Your task to perform on an android device: refresh tabs in the chrome app Image 0: 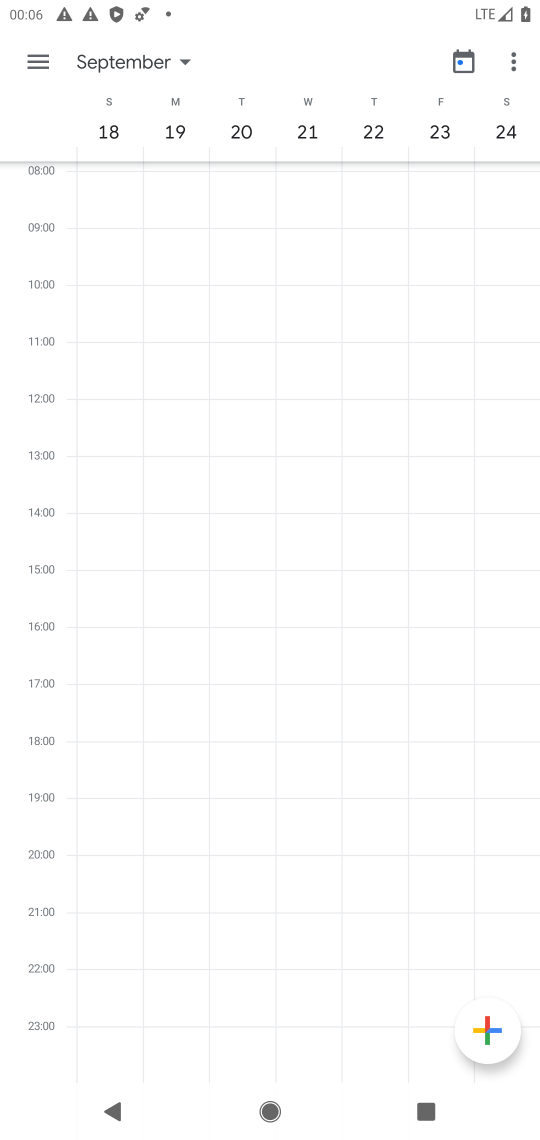
Step 0: press home button
Your task to perform on an android device: refresh tabs in the chrome app Image 1: 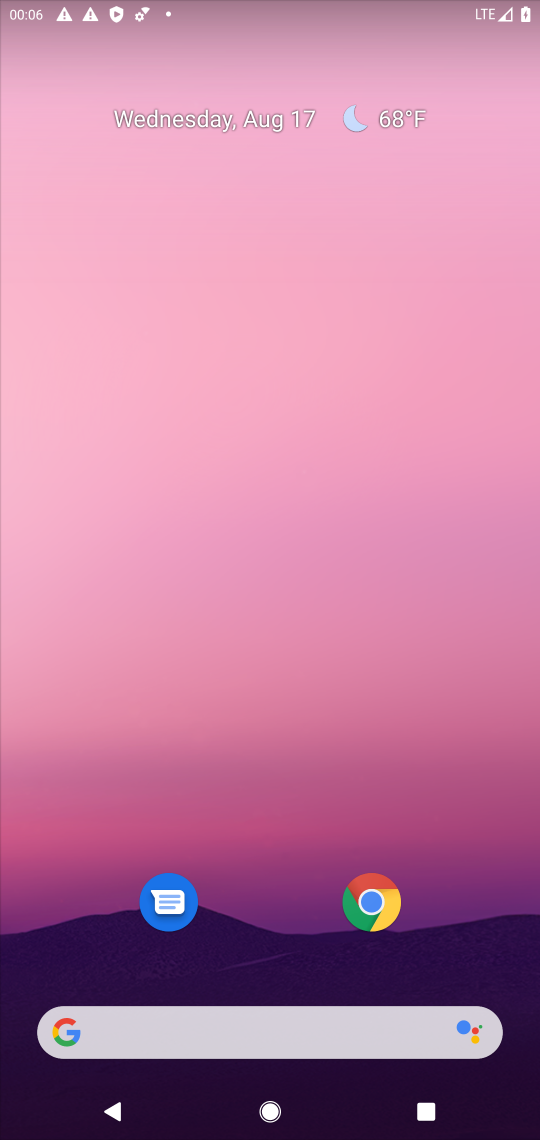
Step 1: click (354, 891)
Your task to perform on an android device: refresh tabs in the chrome app Image 2: 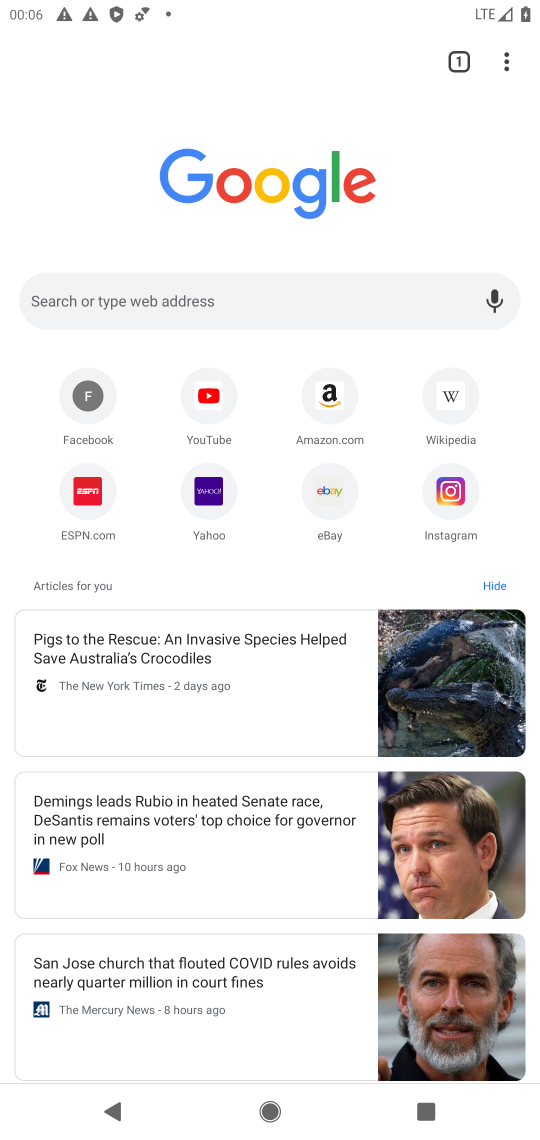
Step 2: click (504, 64)
Your task to perform on an android device: refresh tabs in the chrome app Image 3: 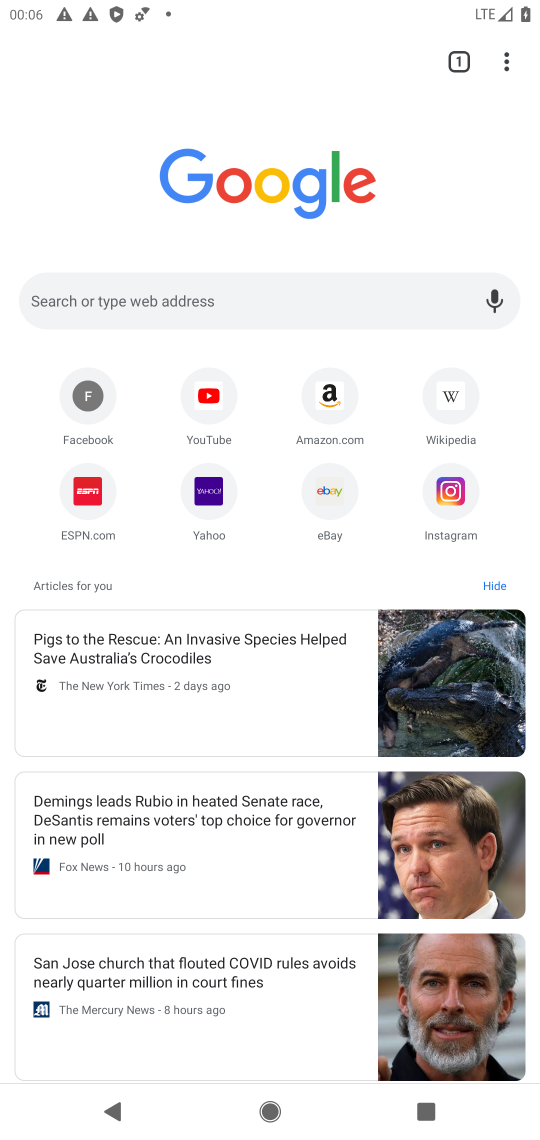
Step 3: click (501, 67)
Your task to perform on an android device: refresh tabs in the chrome app Image 4: 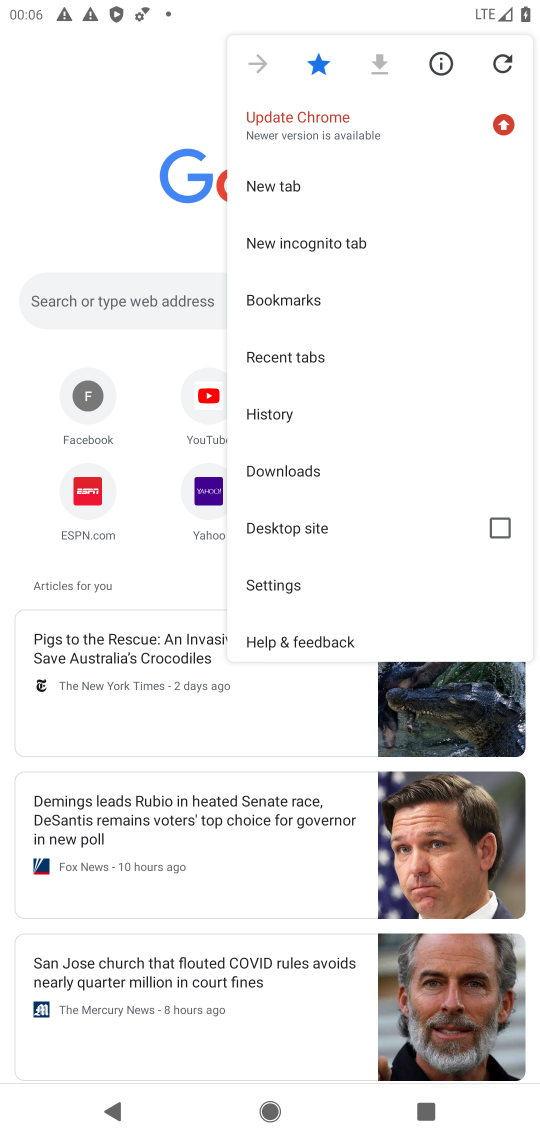
Step 4: click (501, 55)
Your task to perform on an android device: refresh tabs in the chrome app Image 5: 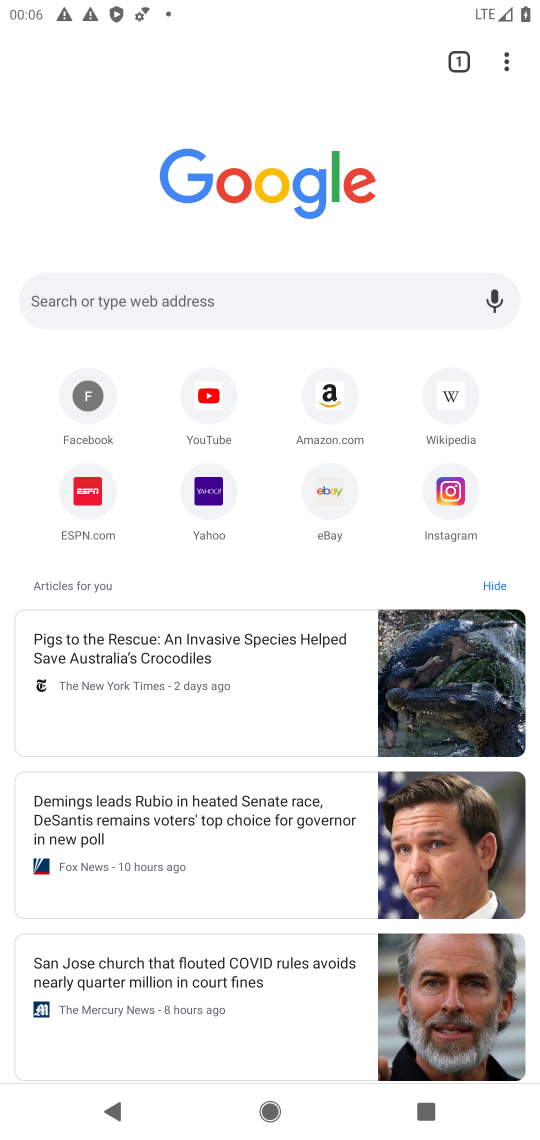
Step 5: task complete